Your task to perform on an android device: stop showing notifications on the lock screen Image 0: 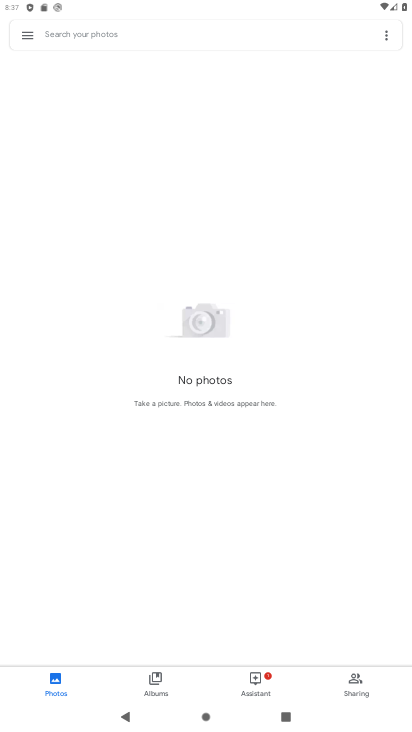
Step 0: press home button
Your task to perform on an android device: stop showing notifications on the lock screen Image 1: 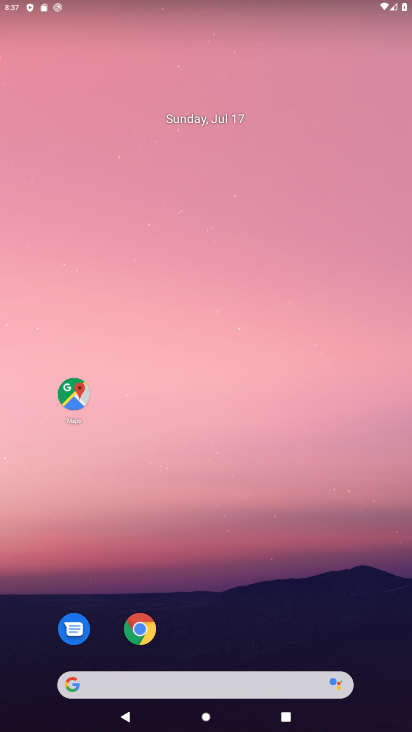
Step 1: drag from (221, 694) to (304, 103)
Your task to perform on an android device: stop showing notifications on the lock screen Image 2: 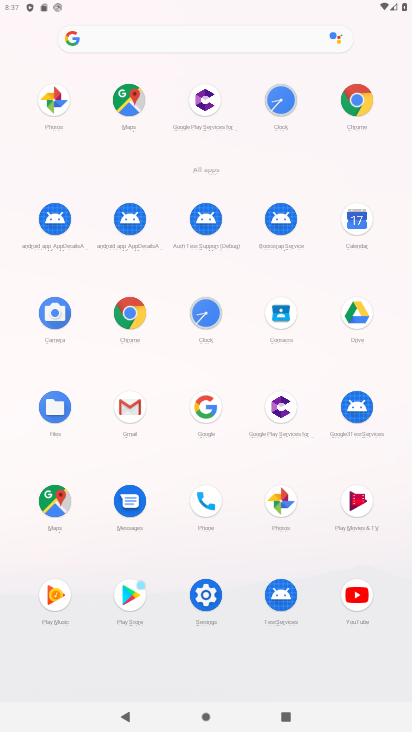
Step 2: click (194, 590)
Your task to perform on an android device: stop showing notifications on the lock screen Image 3: 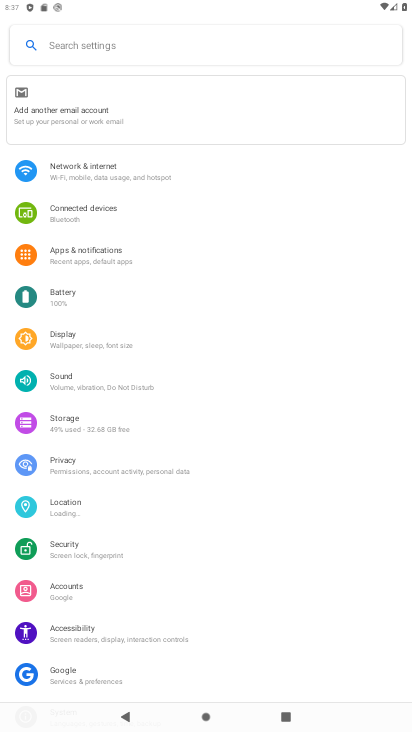
Step 3: click (159, 263)
Your task to perform on an android device: stop showing notifications on the lock screen Image 4: 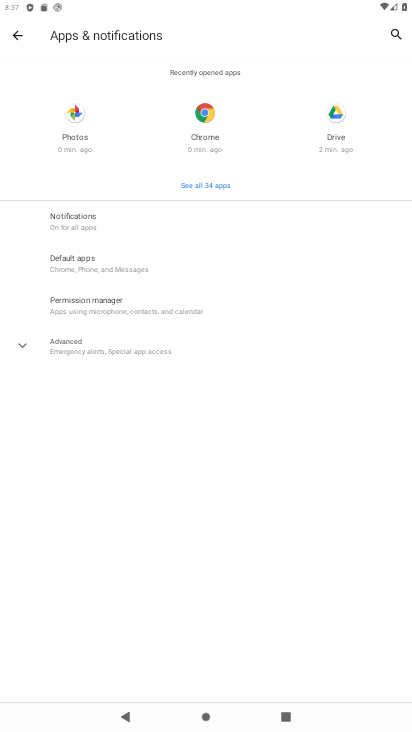
Step 4: click (152, 222)
Your task to perform on an android device: stop showing notifications on the lock screen Image 5: 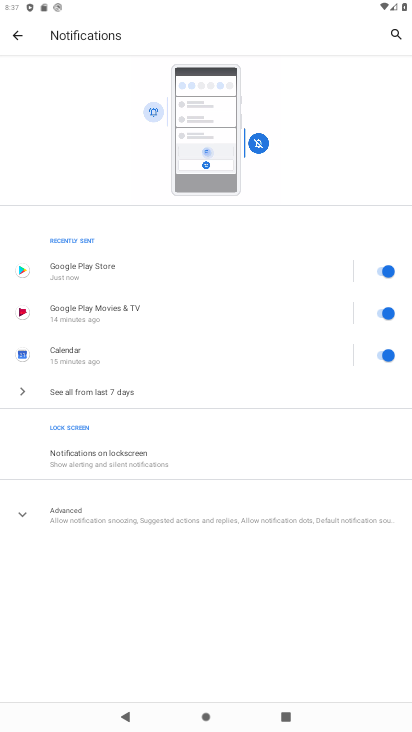
Step 5: click (170, 465)
Your task to perform on an android device: stop showing notifications on the lock screen Image 6: 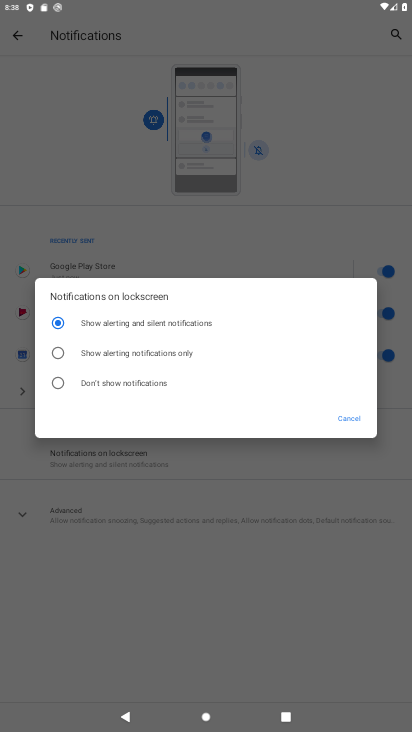
Step 6: click (156, 382)
Your task to perform on an android device: stop showing notifications on the lock screen Image 7: 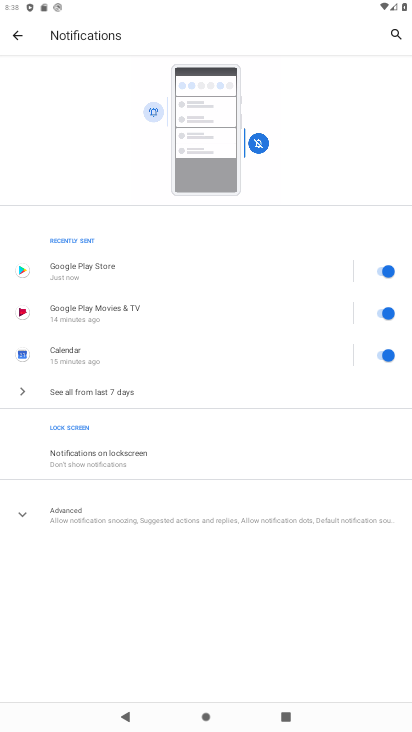
Step 7: task complete